Your task to perform on an android device: turn off priority inbox in the gmail app Image 0: 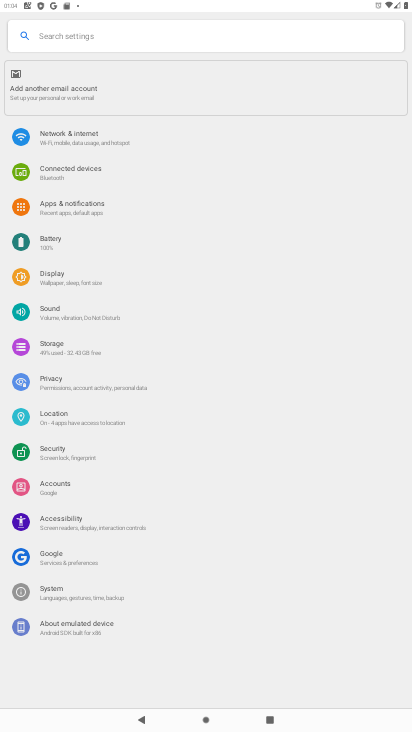
Step 0: press home button
Your task to perform on an android device: turn off priority inbox in the gmail app Image 1: 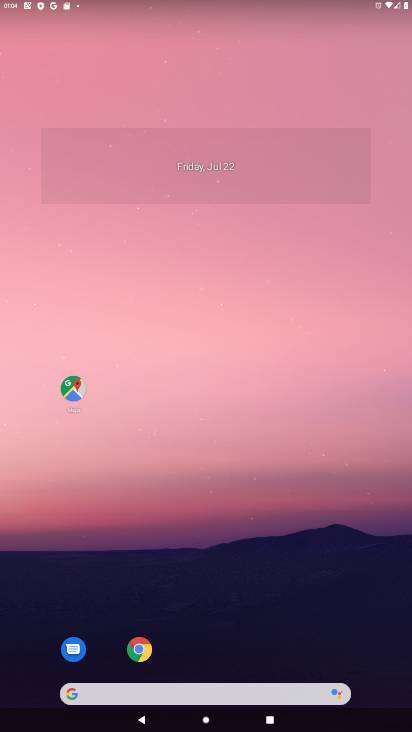
Step 1: drag from (273, 563) to (258, 4)
Your task to perform on an android device: turn off priority inbox in the gmail app Image 2: 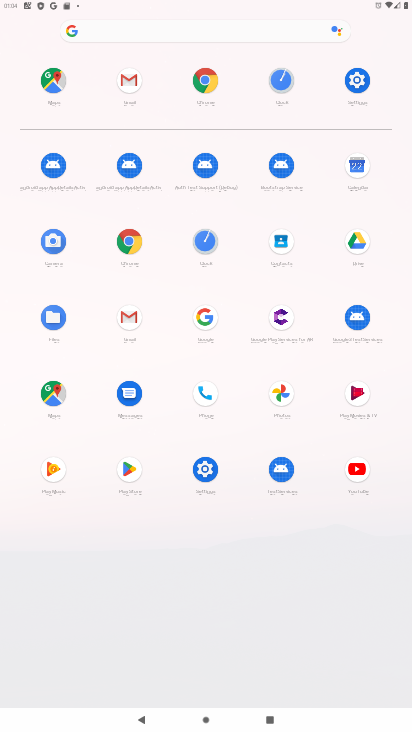
Step 2: click (129, 91)
Your task to perform on an android device: turn off priority inbox in the gmail app Image 3: 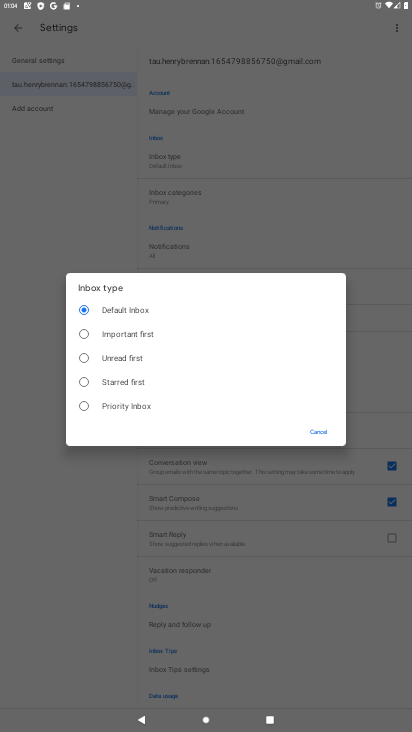
Step 3: task complete